Your task to perform on an android device: Open my contact list Image 0: 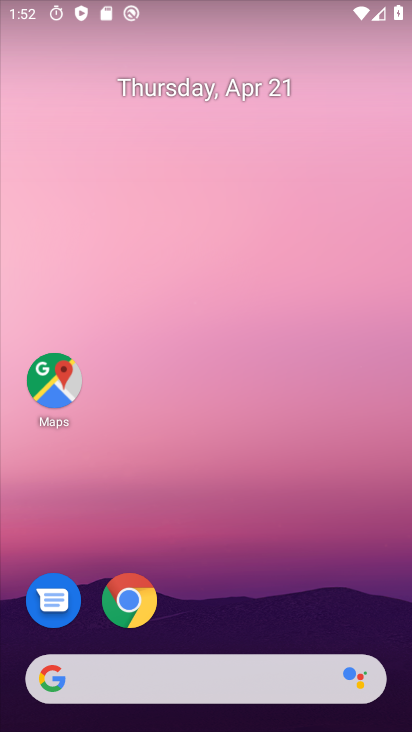
Step 0: drag from (305, 625) to (342, 56)
Your task to perform on an android device: Open my contact list Image 1: 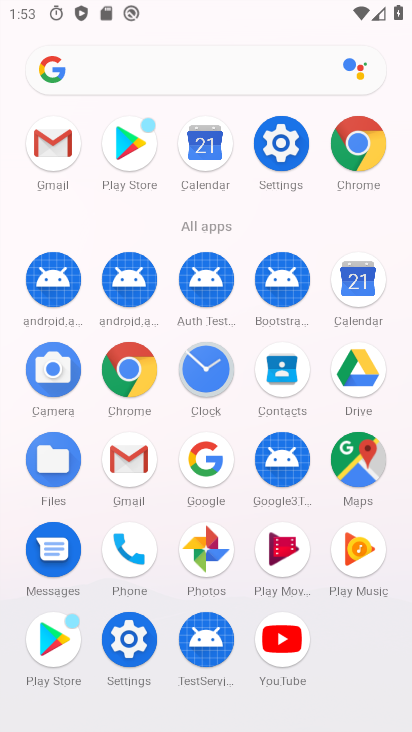
Step 1: click (284, 377)
Your task to perform on an android device: Open my contact list Image 2: 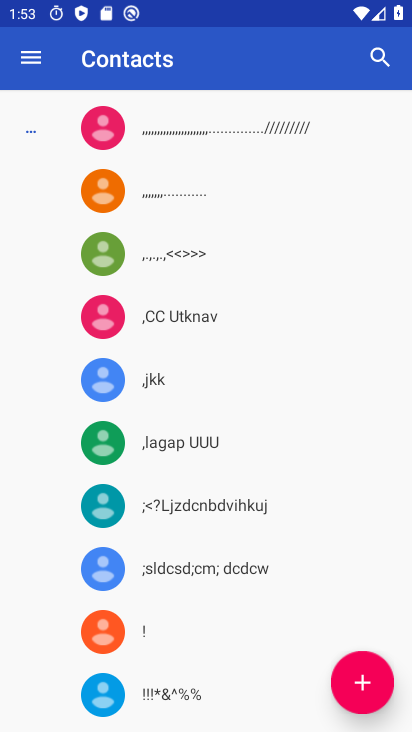
Step 2: task complete